Your task to perform on an android device: find snoozed emails in the gmail app Image 0: 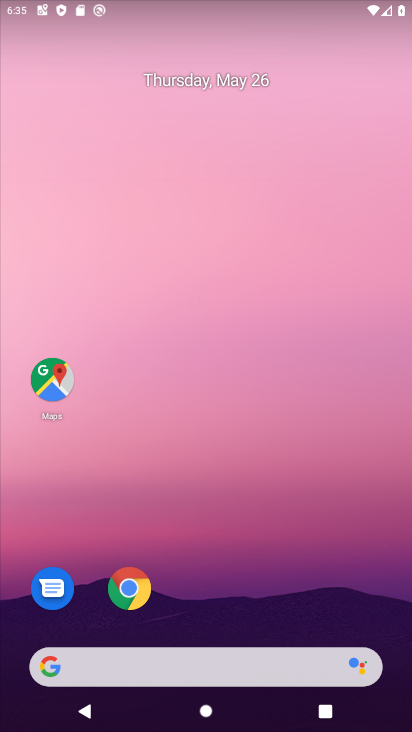
Step 0: drag from (394, 667) to (173, 1)
Your task to perform on an android device: find snoozed emails in the gmail app Image 1: 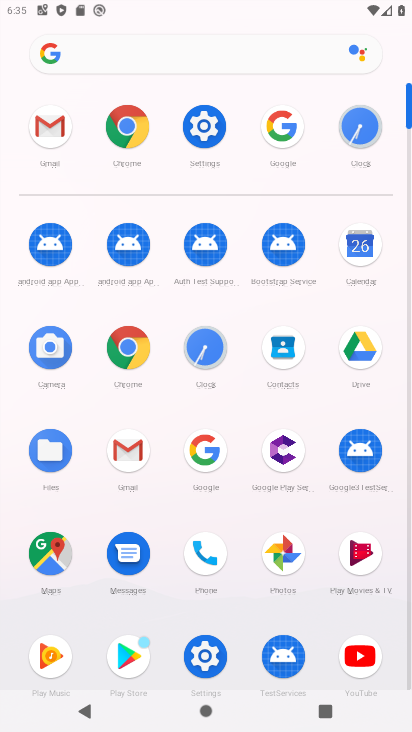
Step 1: click (135, 449)
Your task to perform on an android device: find snoozed emails in the gmail app Image 2: 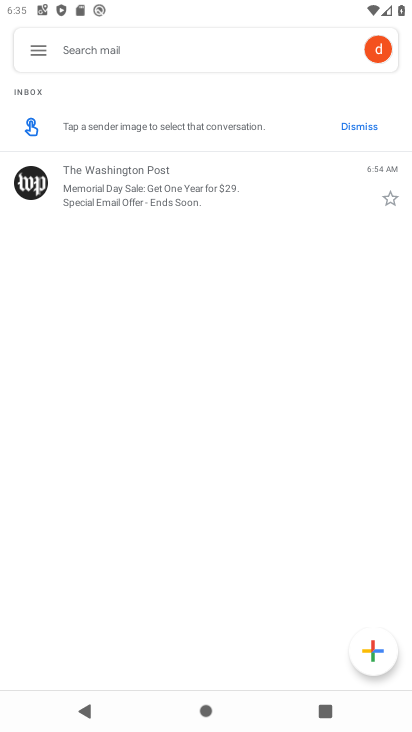
Step 2: click (27, 47)
Your task to perform on an android device: find snoozed emails in the gmail app Image 3: 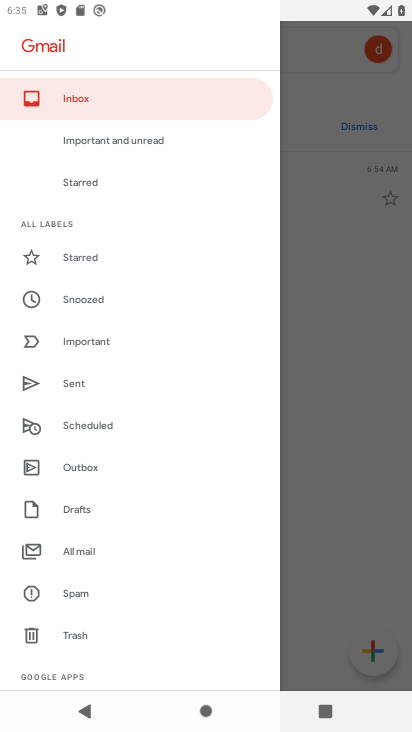
Step 3: click (127, 300)
Your task to perform on an android device: find snoozed emails in the gmail app Image 4: 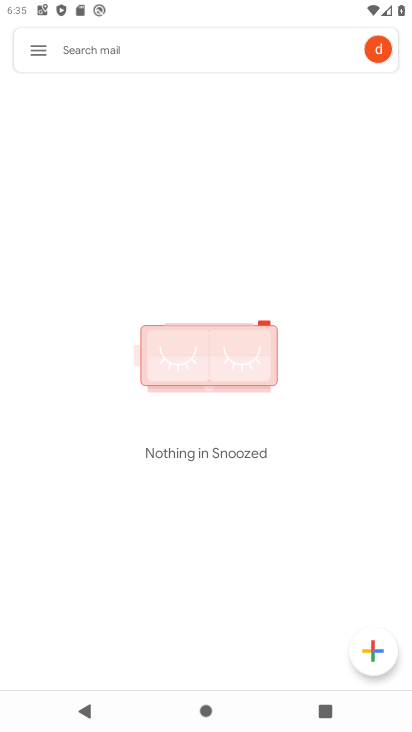
Step 4: task complete